Your task to perform on an android device: Search for flights from Seoul to Barcelona Image 0: 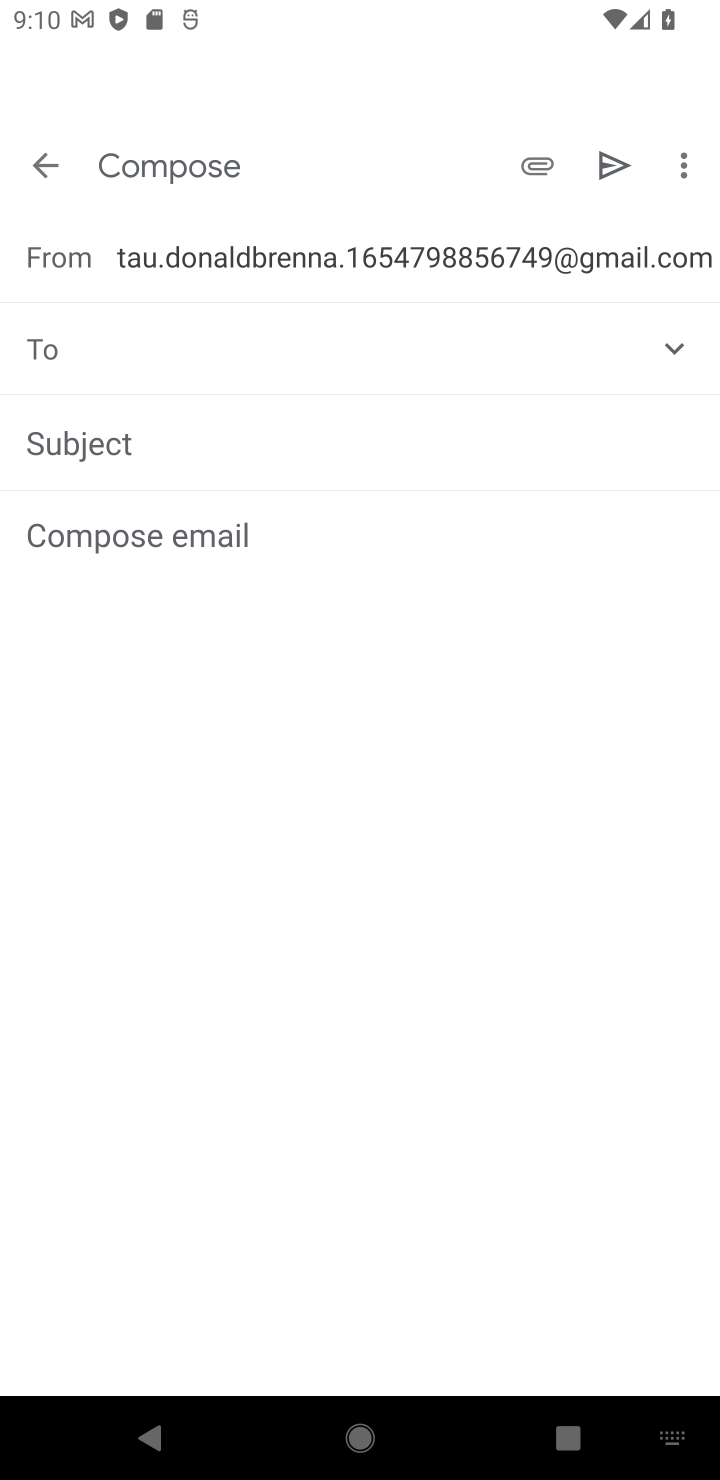
Step 0: press home button
Your task to perform on an android device: Search for flights from Seoul to Barcelona Image 1: 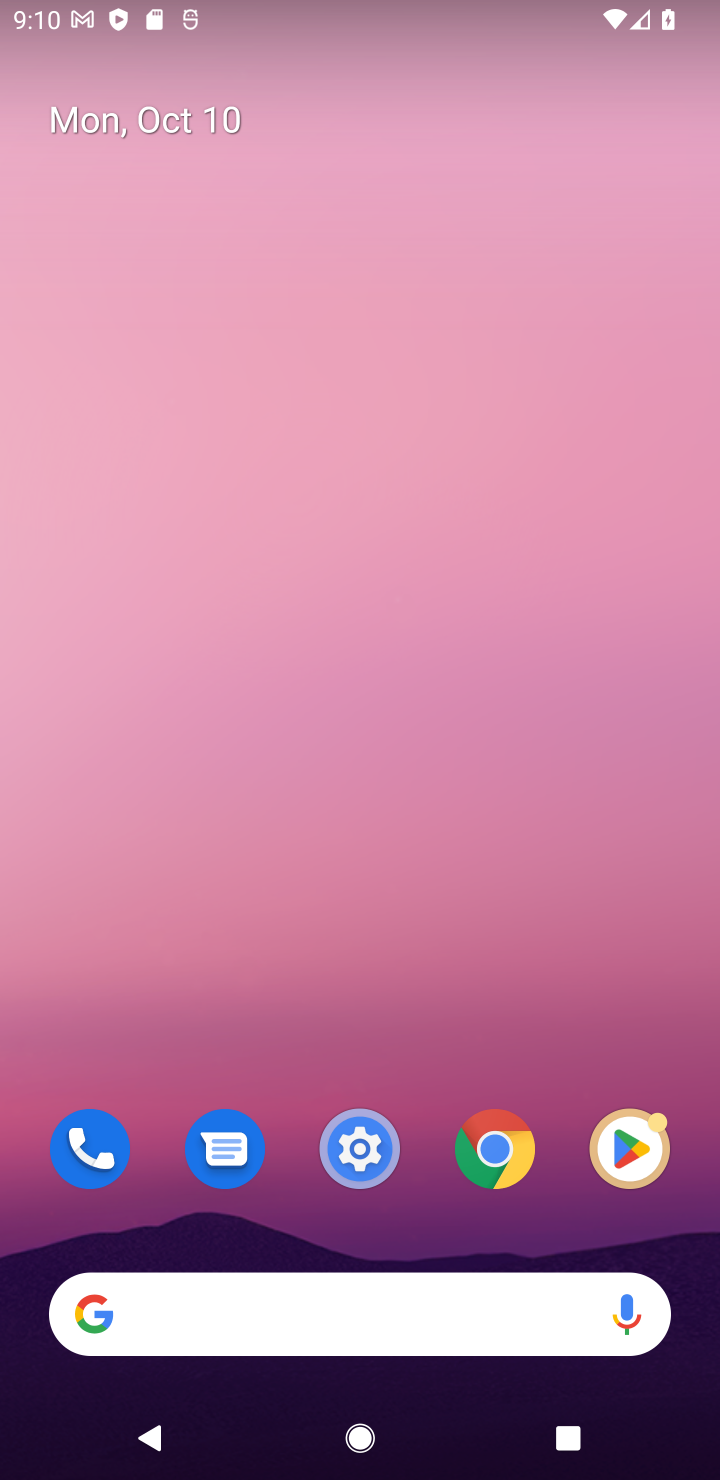
Step 1: click (472, 1309)
Your task to perform on an android device: Search for flights from Seoul to Barcelona Image 2: 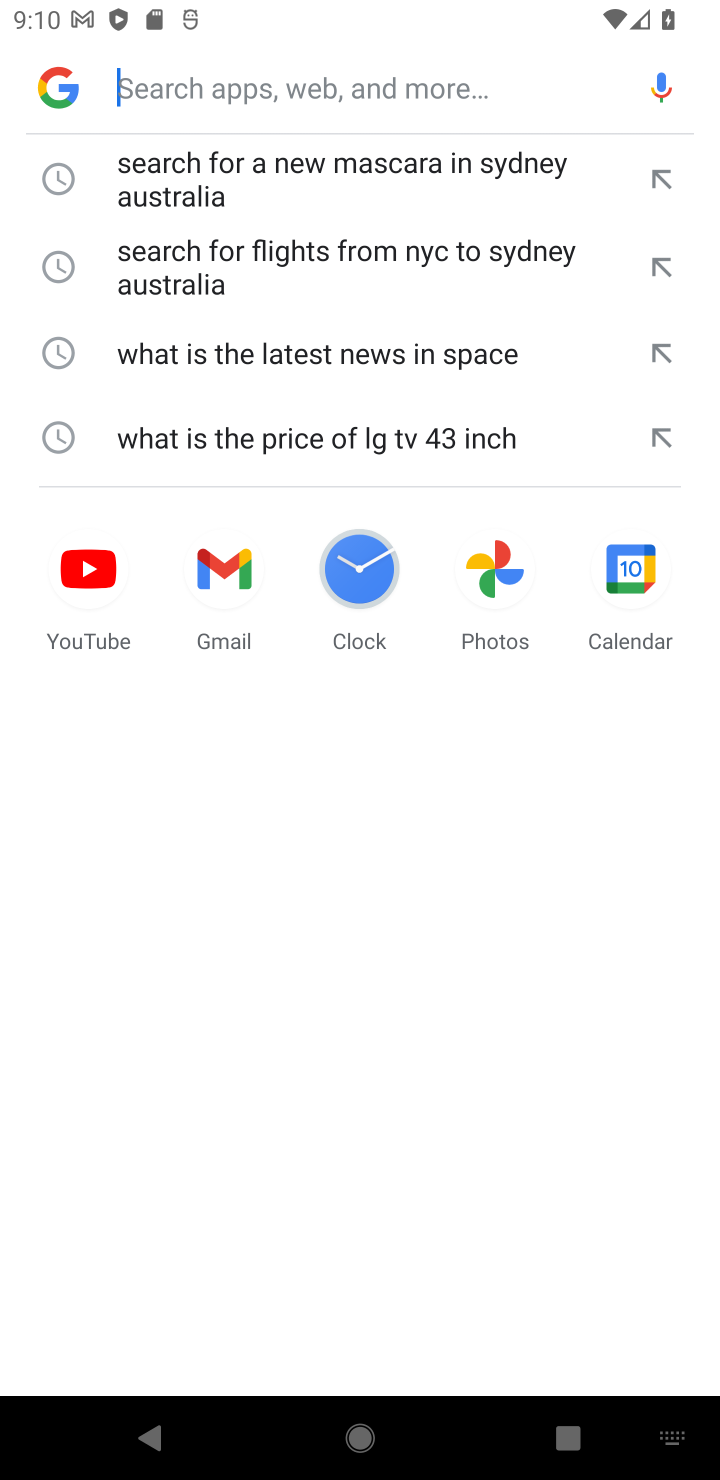
Step 2: type "flights from Seoul to Barcelona"
Your task to perform on an android device: Search for flights from Seoul to Barcelona Image 3: 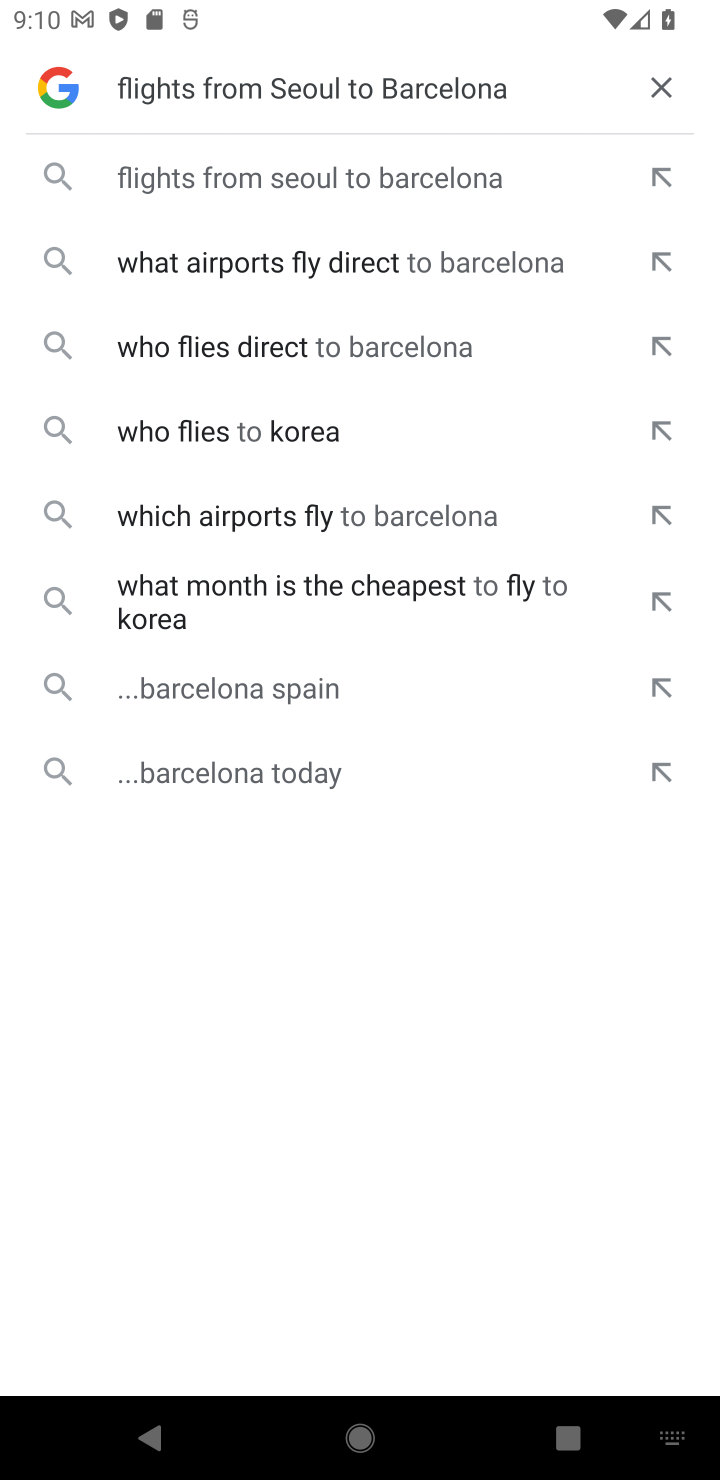
Step 3: click (458, 176)
Your task to perform on an android device: Search for flights from Seoul to Barcelona Image 4: 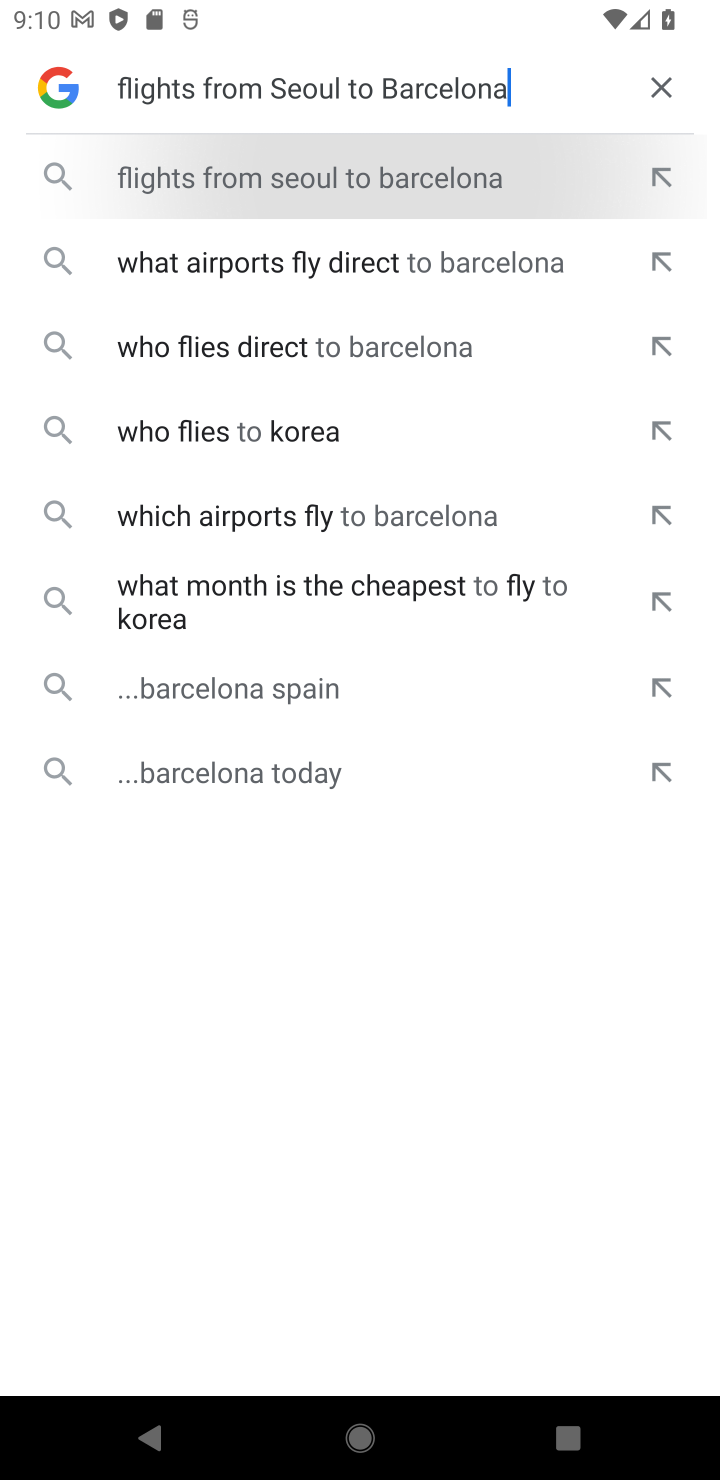
Step 4: task complete